Your task to perform on an android device: change the upload size in google photos Image 0: 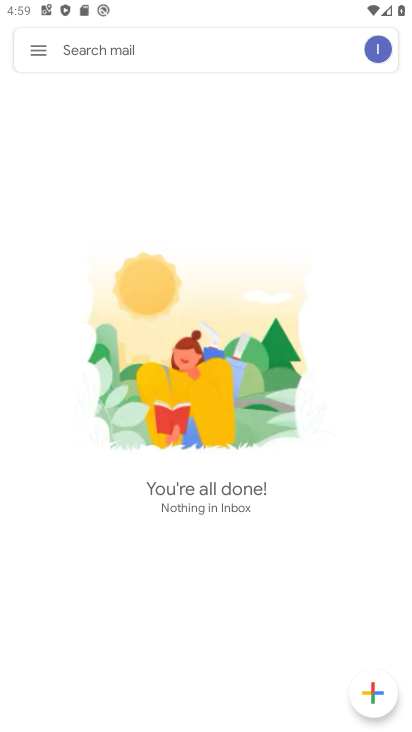
Step 0: press home button
Your task to perform on an android device: change the upload size in google photos Image 1: 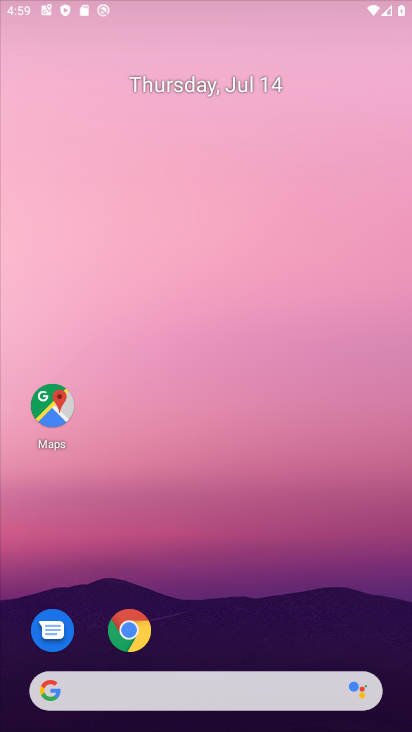
Step 1: drag from (329, 687) to (342, 86)
Your task to perform on an android device: change the upload size in google photos Image 2: 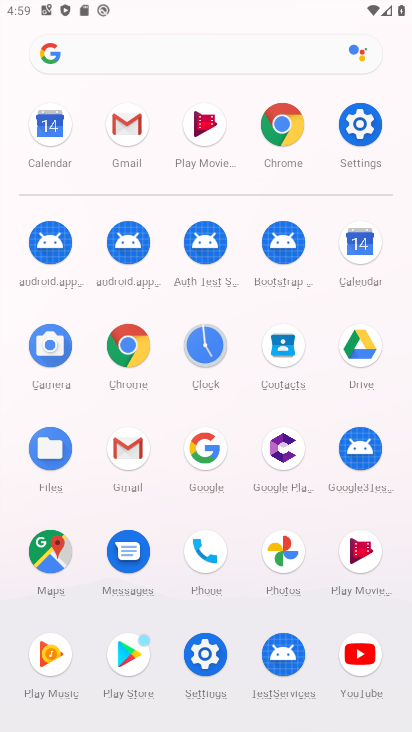
Step 2: click (288, 546)
Your task to perform on an android device: change the upload size in google photos Image 3: 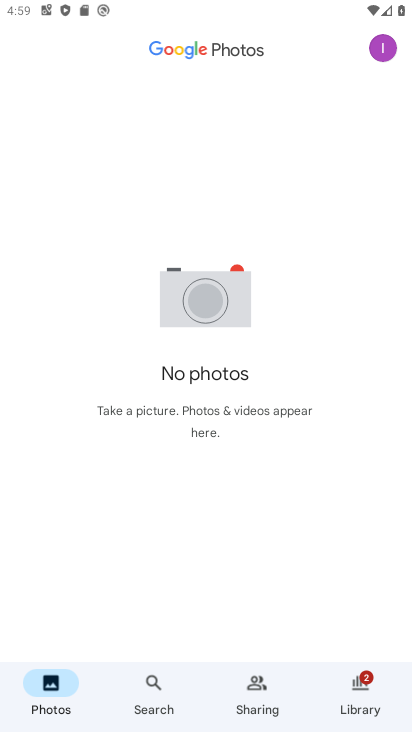
Step 3: click (376, 49)
Your task to perform on an android device: change the upload size in google photos Image 4: 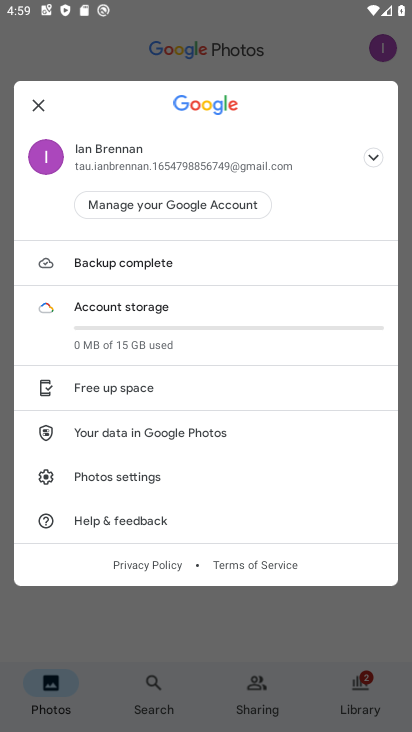
Step 4: click (135, 477)
Your task to perform on an android device: change the upload size in google photos Image 5: 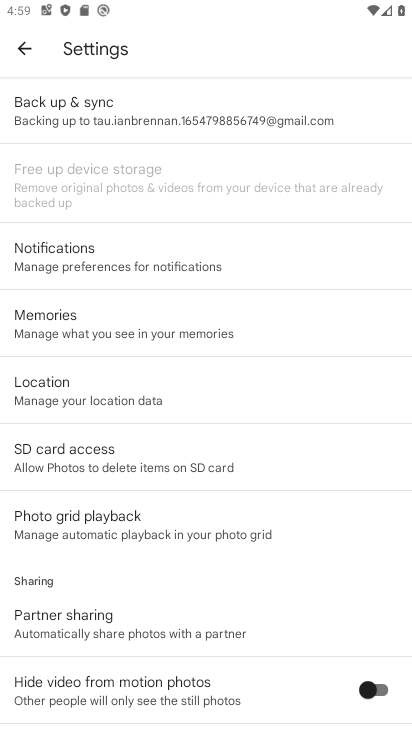
Step 5: click (187, 99)
Your task to perform on an android device: change the upload size in google photos Image 6: 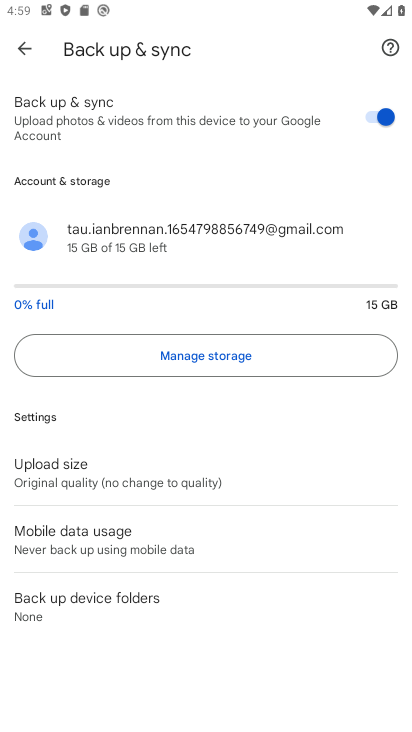
Step 6: click (81, 475)
Your task to perform on an android device: change the upload size in google photos Image 7: 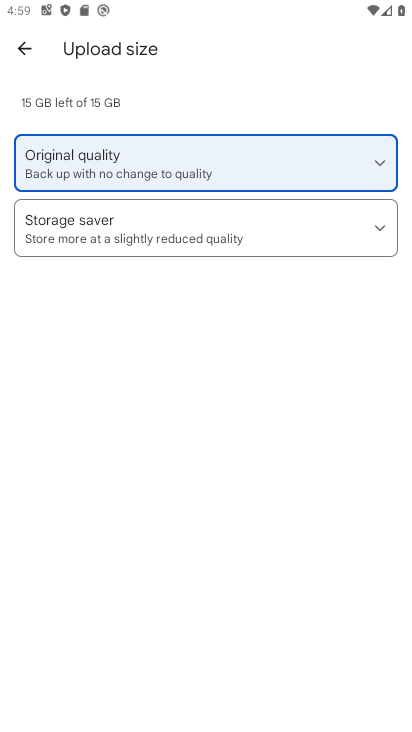
Step 7: click (144, 229)
Your task to perform on an android device: change the upload size in google photos Image 8: 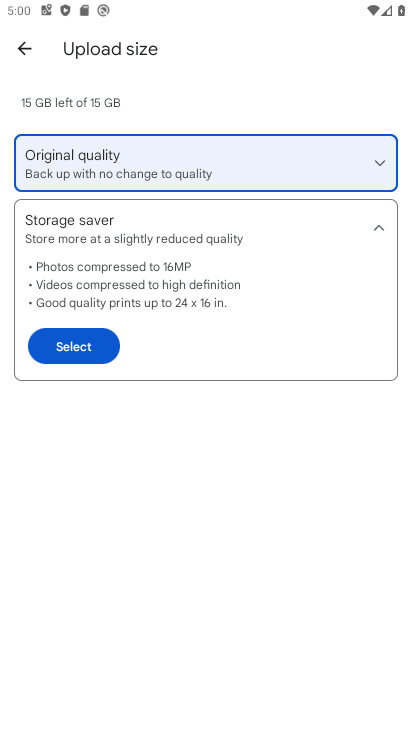
Step 8: click (90, 342)
Your task to perform on an android device: change the upload size in google photos Image 9: 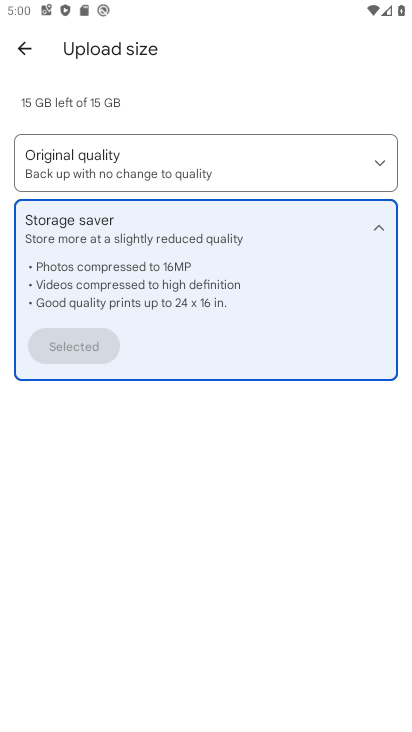
Step 9: task complete